Your task to perform on an android device: check storage Image 0: 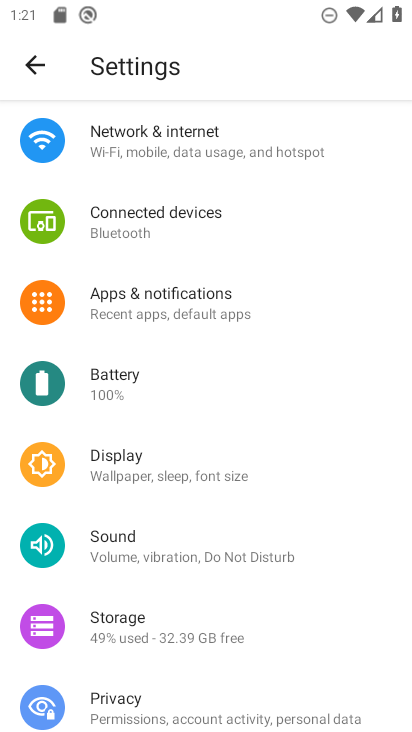
Step 0: click (118, 618)
Your task to perform on an android device: check storage Image 1: 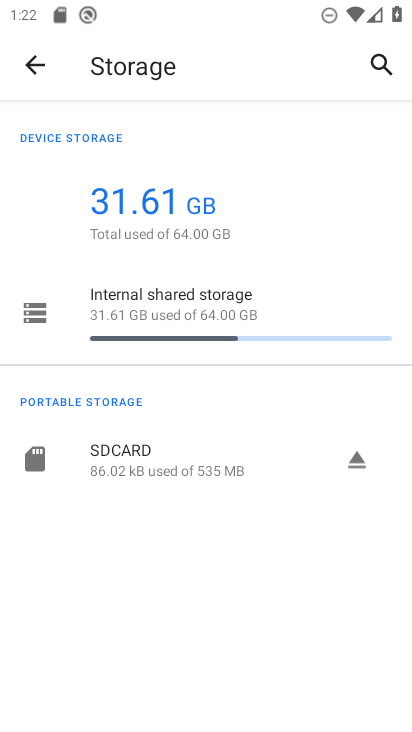
Step 1: task complete